Your task to perform on an android device: toggle translation in the chrome app Image 0: 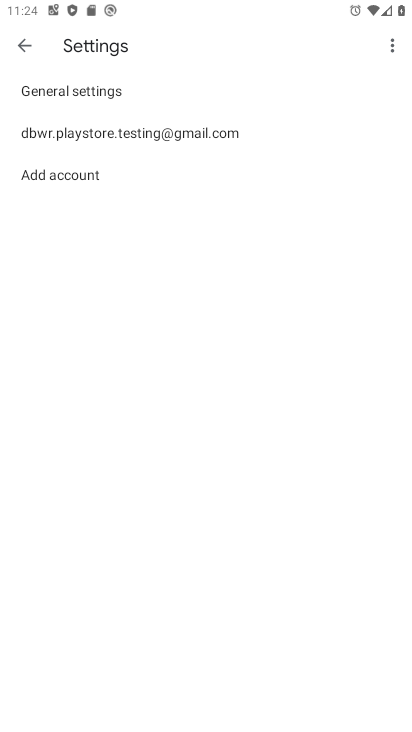
Step 0: press home button
Your task to perform on an android device: toggle translation in the chrome app Image 1: 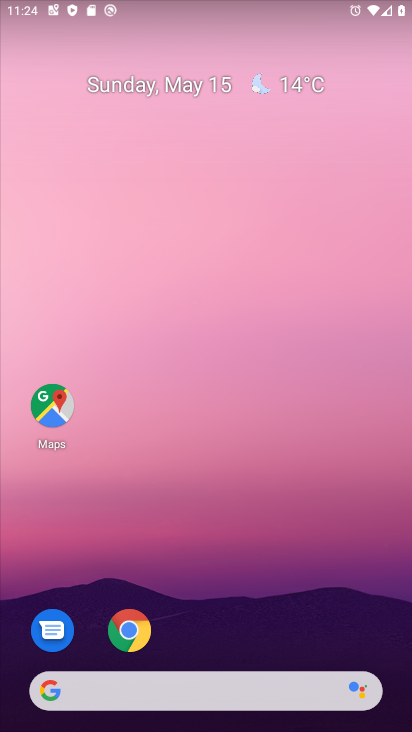
Step 1: click (123, 626)
Your task to perform on an android device: toggle translation in the chrome app Image 2: 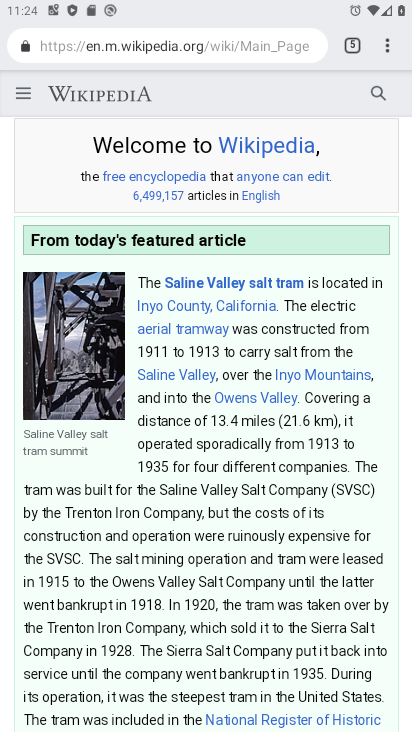
Step 2: click (387, 48)
Your task to perform on an android device: toggle translation in the chrome app Image 3: 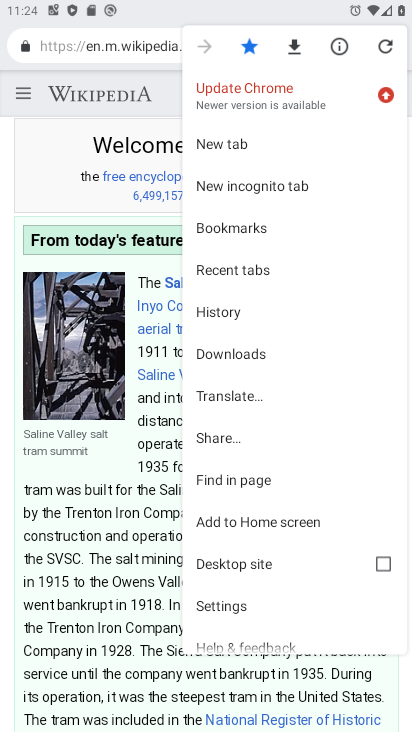
Step 3: click (233, 602)
Your task to perform on an android device: toggle translation in the chrome app Image 4: 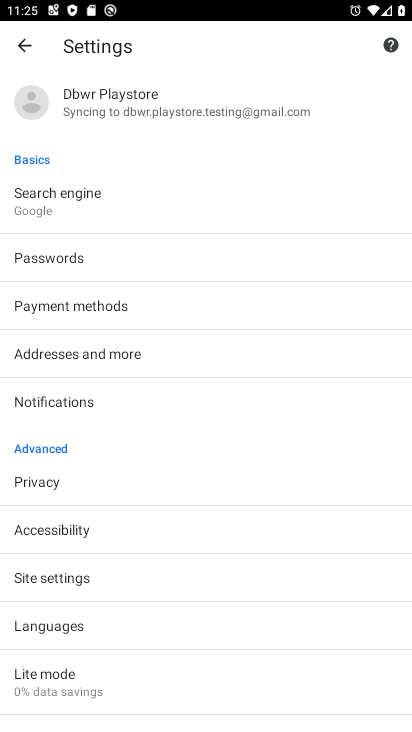
Step 4: drag from (75, 610) to (69, 428)
Your task to perform on an android device: toggle translation in the chrome app Image 5: 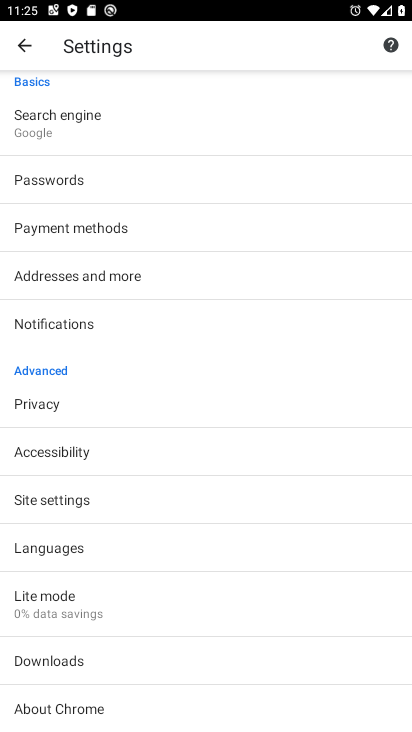
Step 5: click (59, 546)
Your task to perform on an android device: toggle translation in the chrome app Image 6: 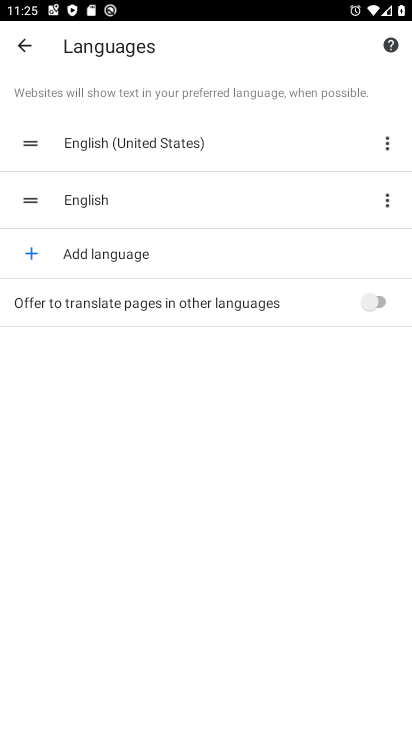
Step 6: click (379, 301)
Your task to perform on an android device: toggle translation in the chrome app Image 7: 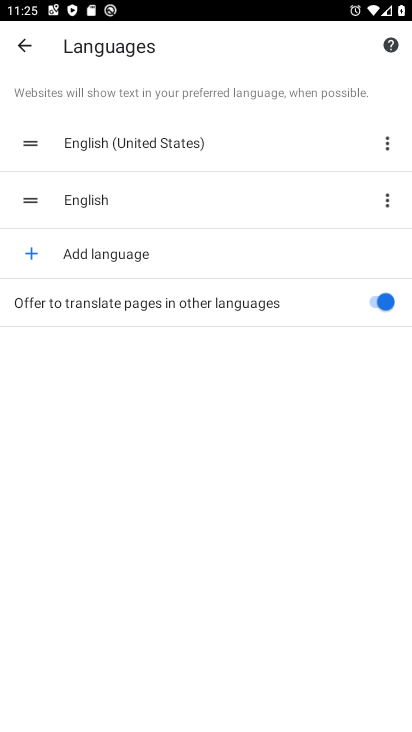
Step 7: task complete